Your task to perform on an android device: delete location history Image 0: 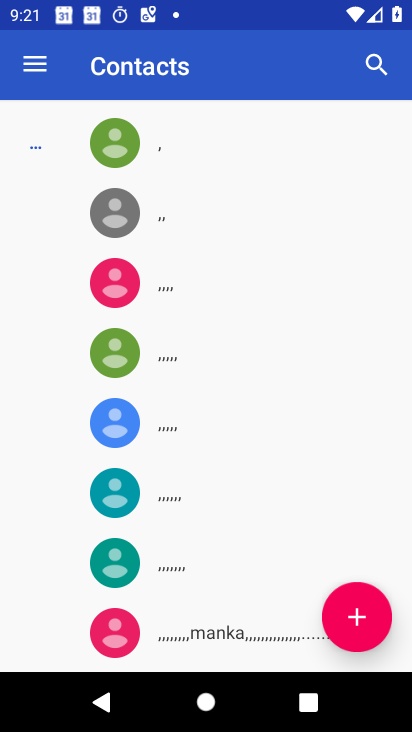
Step 0: press home button
Your task to perform on an android device: delete location history Image 1: 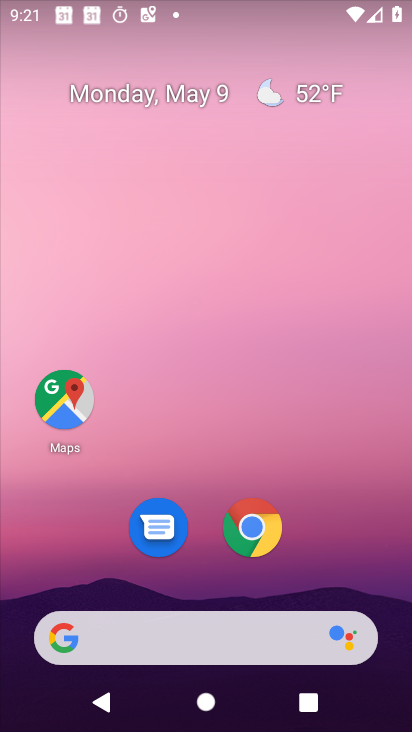
Step 1: drag from (355, 484) to (348, 102)
Your task to perform on an android device: delete location history Image 2: 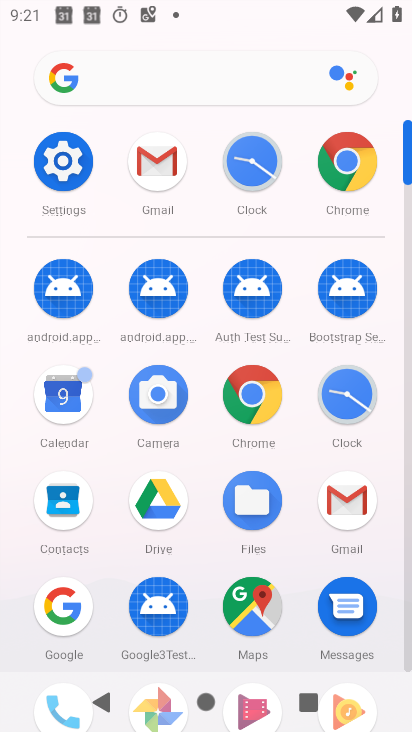
Step 2: click (58, 166)
Your task to perform on an android device: delete location history Image 3: 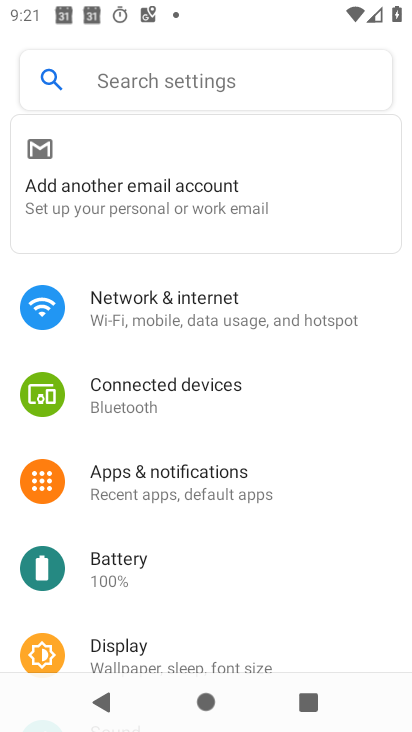
Step 3: drag from (266, 672) to (363, 224)
Your task to perform on an android device: delete location history Image 4: 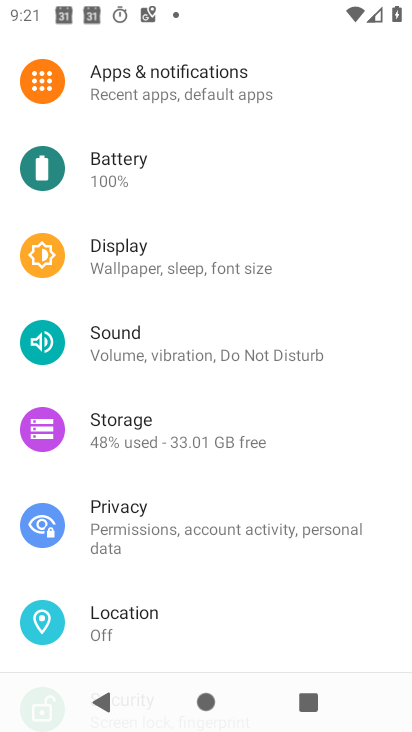
Step 4: click (156, 636)
Your task to perform on an android device: delete location history Image 5: 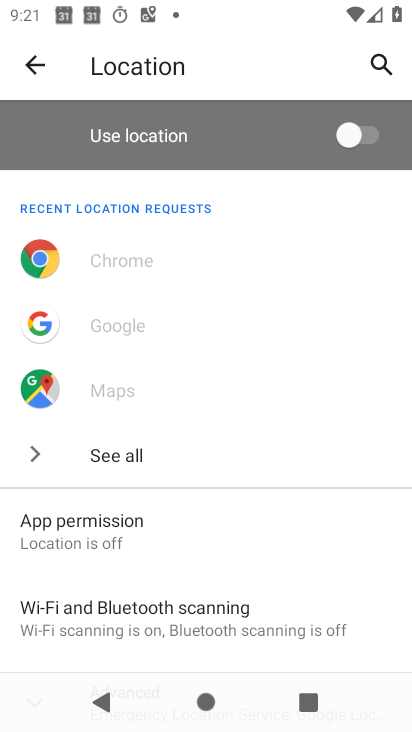
Step 5: drag from (277, 539) to (277, 126)
Your task to perform on an android device: delete location history Image 6: 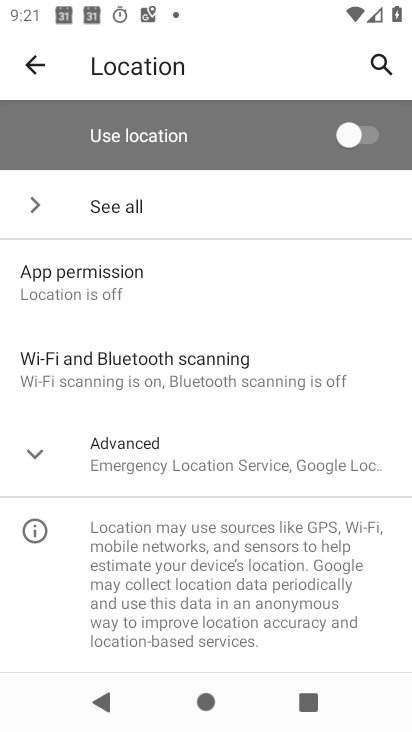
Step 6: click (237, 451)
Your task to perform on an android device: delete location history Image 7: 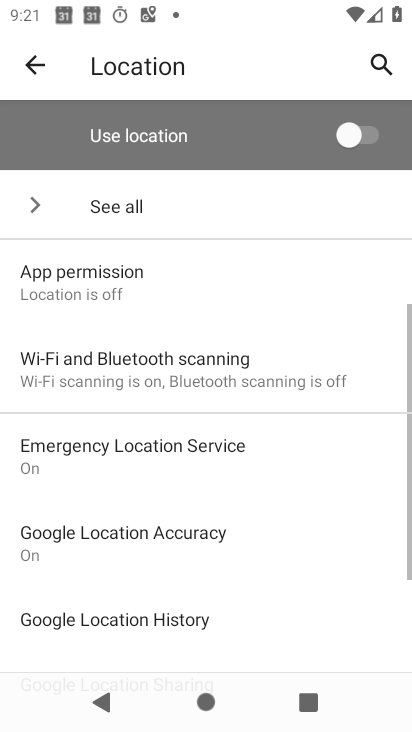
Step 7: drag from (249, 612) to (235, 287)
Your task to perform on an android device: delete location history Image 8: 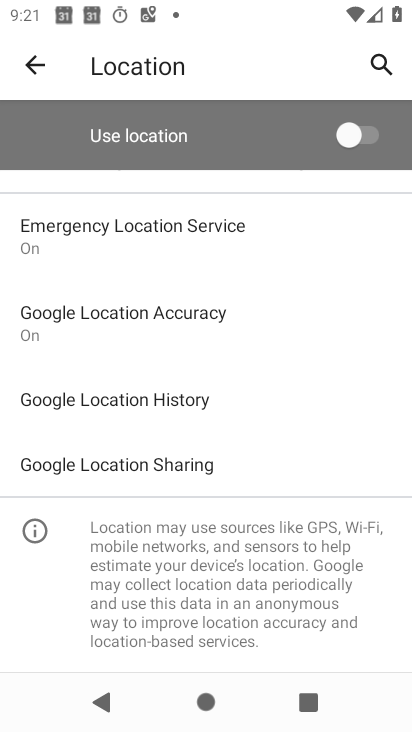
Step 8: click (140, 404)
Your task to perform on an android device: delete location history Image 9: 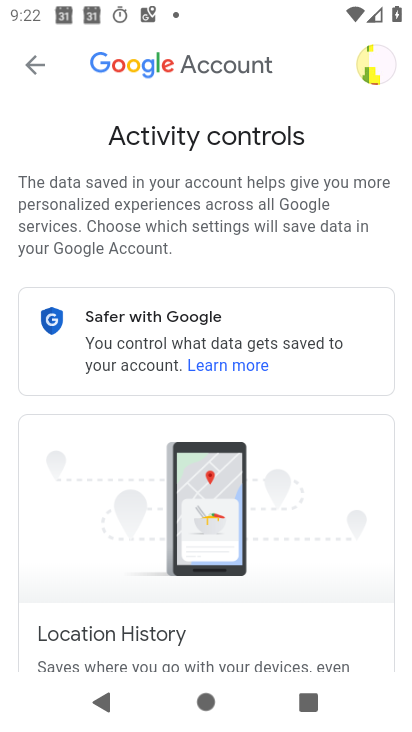
Step 9: drag from (264, 603) to (302, 251)
Your task to perform on an android device: delete location history Image 10: 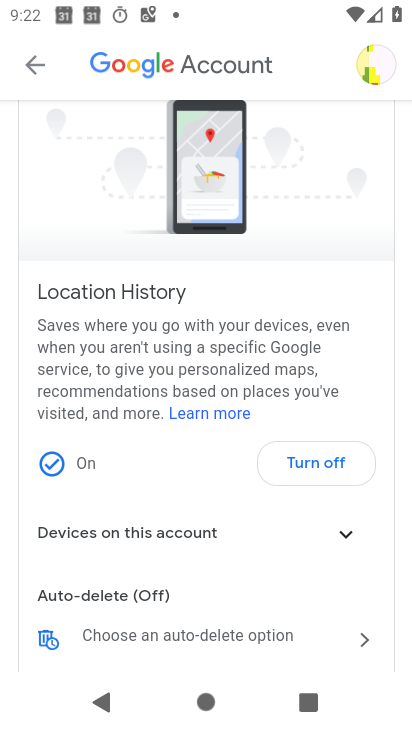
Step 10: drag from (213, 601) to (289, 225)
Your task to perform on an android device: delete location history Image 11: 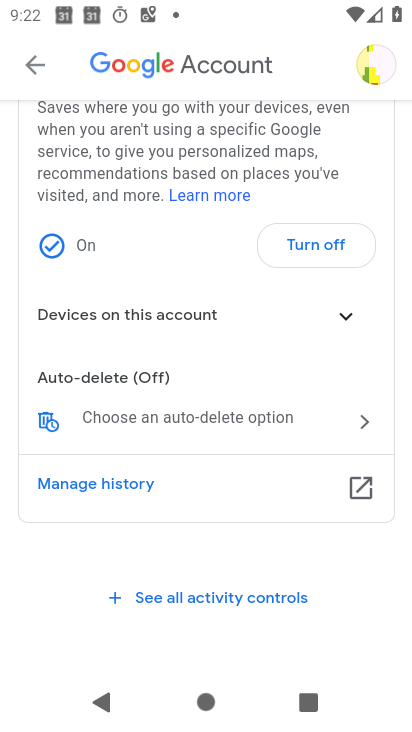
Step 11: click (152, 497)
Your task to perform on an android device: delete location history Image 12: 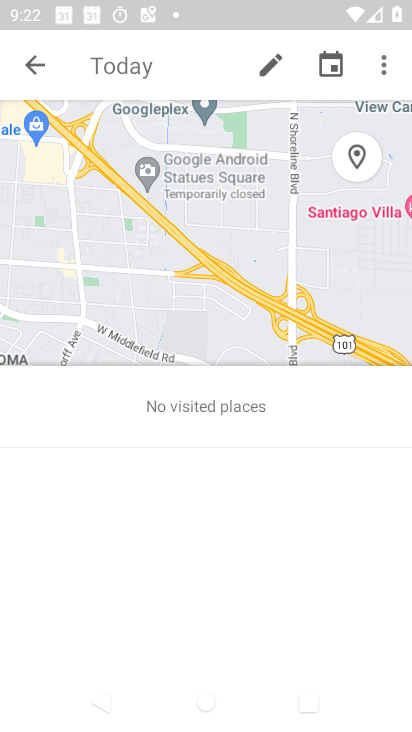
Step 12: click (380, 70)
Your task to perform on an android device: delete location history Image 13: 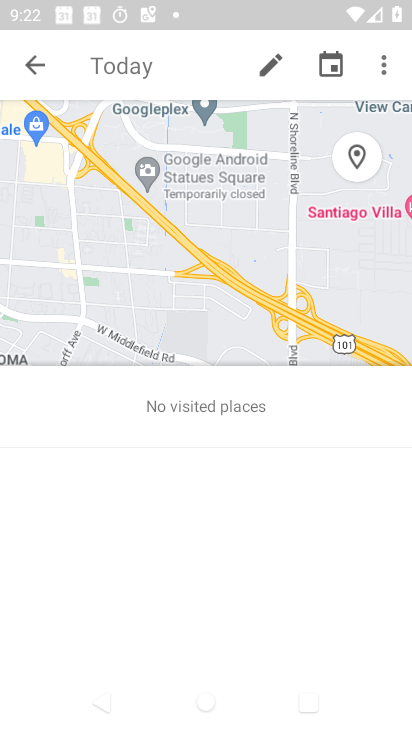
Step 13: click (245, 428)
Your task to perform on an android device: delete location history Image 14: 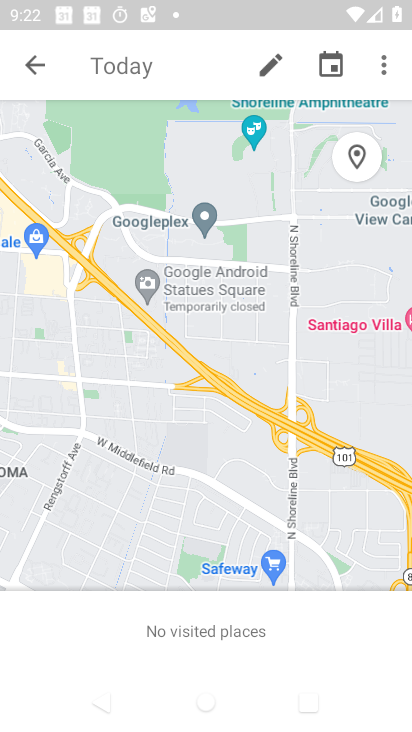
Step 14: click (380, 72)
Your task to perform on an android device: delete location history Image 15: 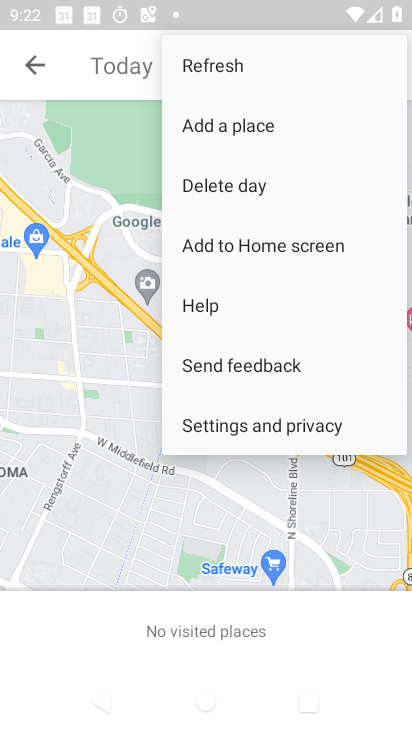
Step 15: click (228, 436)
Your task to perform on an android device: delete location history Image 16: 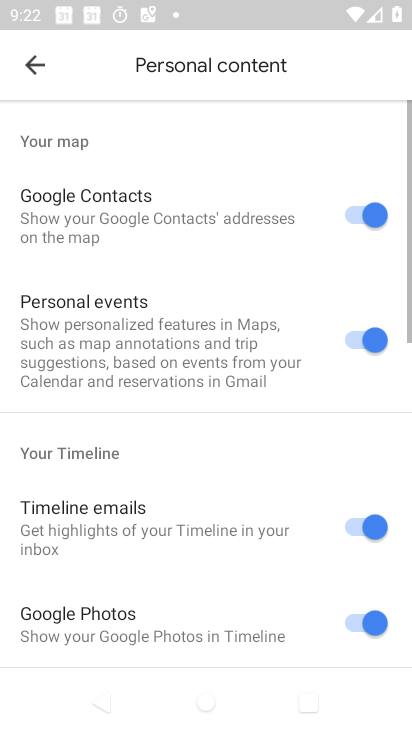
Step 16: drag from (192, 574) to (241, 257)
Your task to perform on an android device: delete location history Image 17: 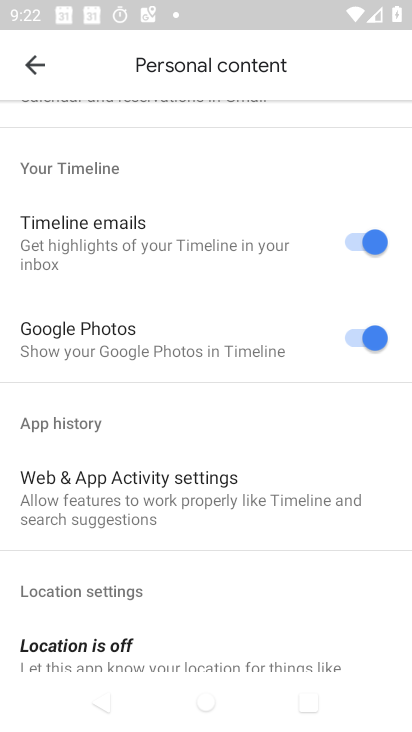
Step 17: drag from (198, 585) to (257, 236)
Your task to perform on an android device: delete location history Image 18: 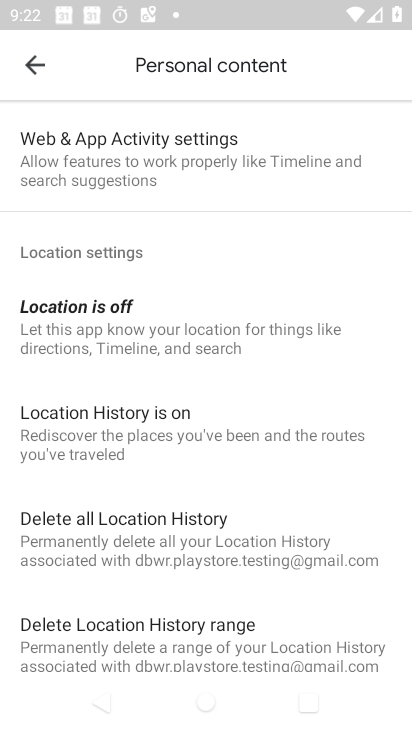
Step 18: click (200, 530)
Your task to perform on an android device: delete location history Image 19: 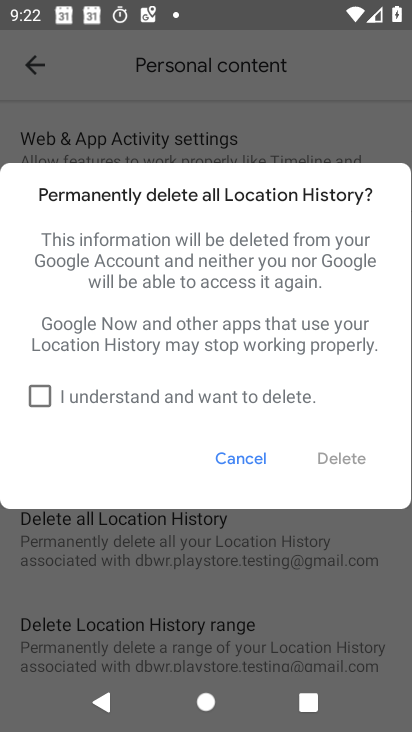
Step 19: click (44, 400)
Your task to perform on an android device: delete location history Image 20: 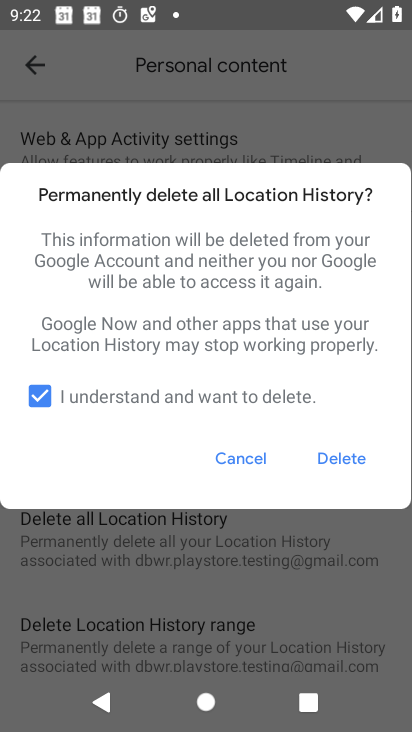
Step 20: click (344, 457)
Your task to perform on an android device: delete location history Image 21: 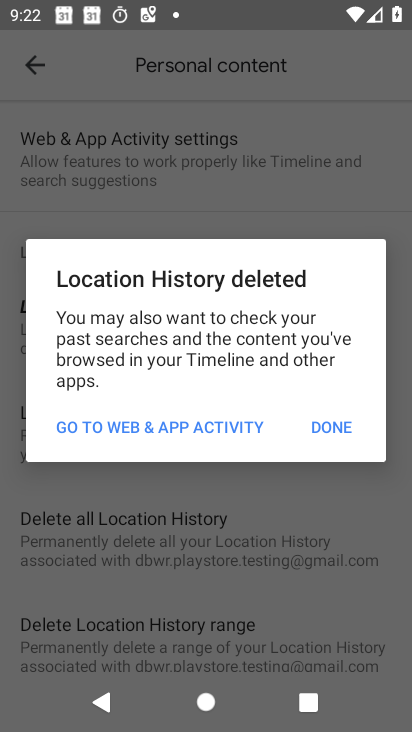
Step 21: click (328, 426)
Your task to perform on an android device: delete location history Image 22: 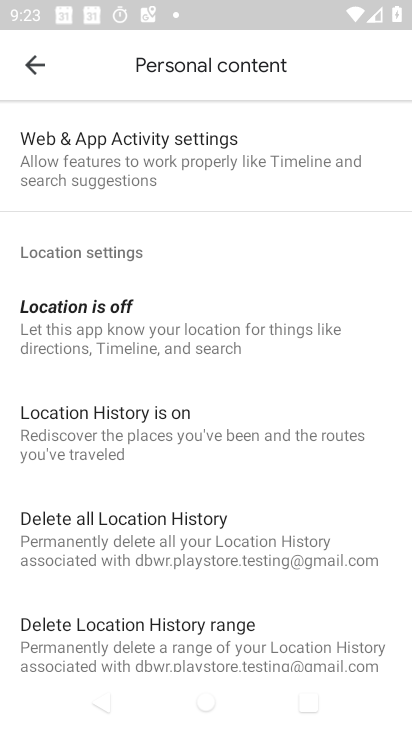
Step 22: task complete